Your task to perform on an android device: turn off smart reply in the gmail app Image 0: 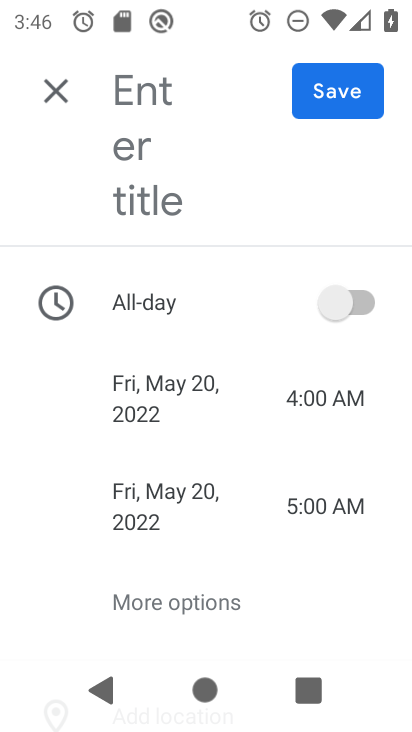
Step 0: press home button
Your task to perform on an android device: turn off smart reply in the gmail app Image 1: 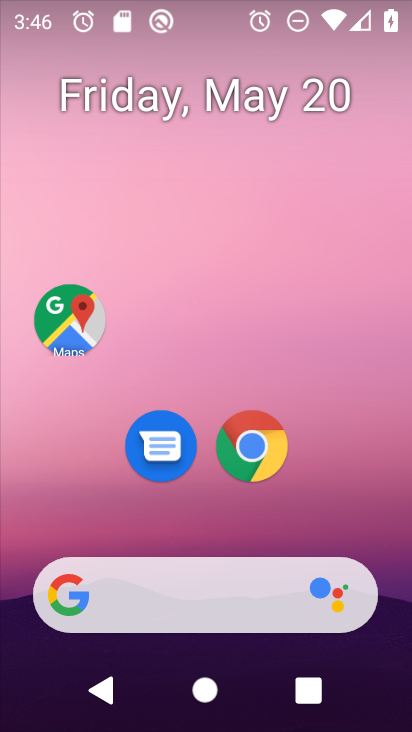
Step 1: drag from (374, 558) to (387, 16)
Your task to perform on an android device: turn off smart reply in the gmail app Image 2: 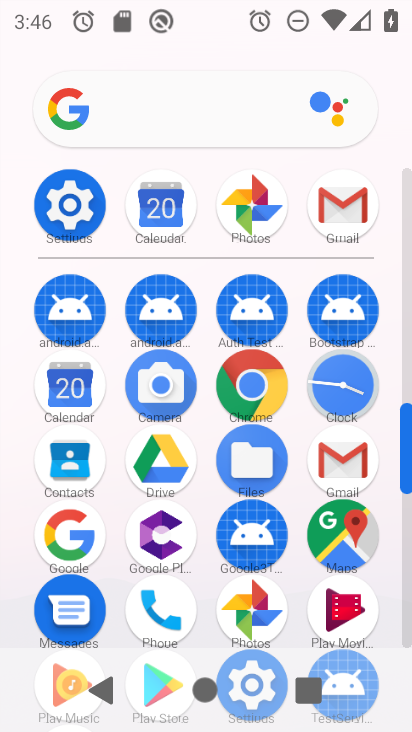
Step 2: click (332, 215)
Your task to perform on an android device: turn off smart reply in the gmail app Image 3: 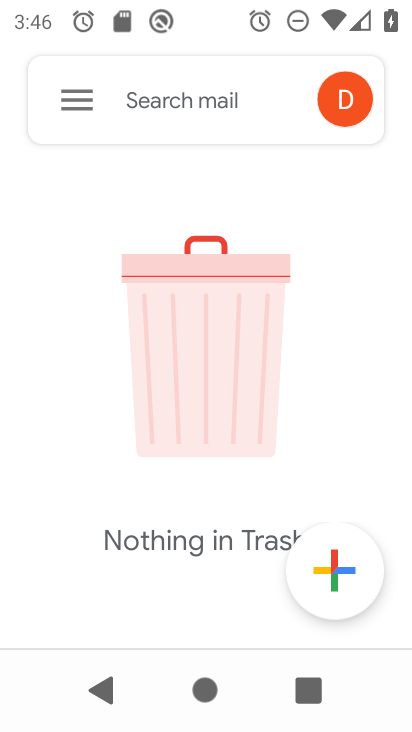
Step 3: click (76, 103)
Your task to perform on an android device: turn off smart reply in the gmail app Image 4: 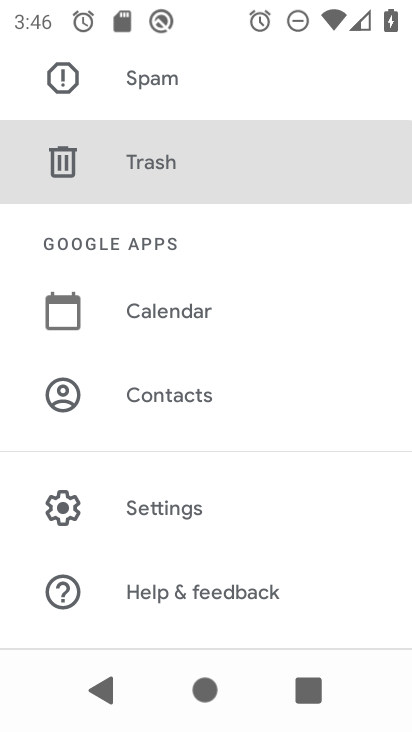
Step 4: click (168, 511)
Your task to perform on an android device: turn off smart reply in the gmail app Image 5: 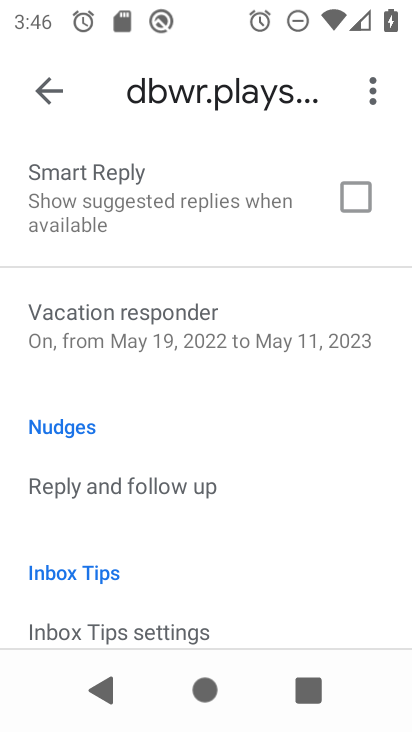
Step 5: task complete